Your task to perform on an android device: Open Google Chrome and click the shortcut for Amazon.com Image 0: 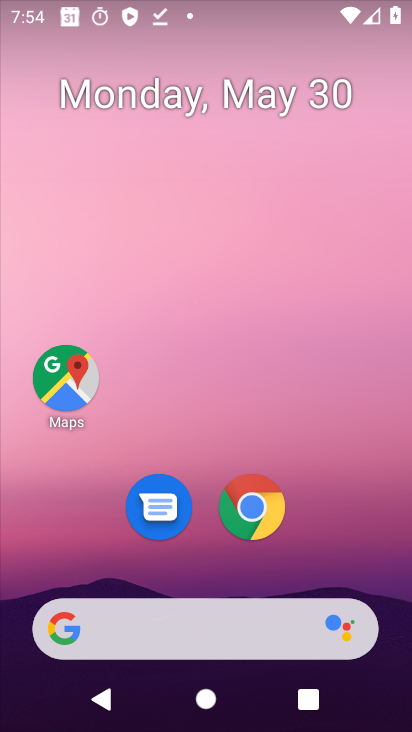
Step 0: drag from (375, 517) to (346, 184)
Your task to perform on an android device: Open Google Chrome and click the shortcut for Amazon.com Image 1: 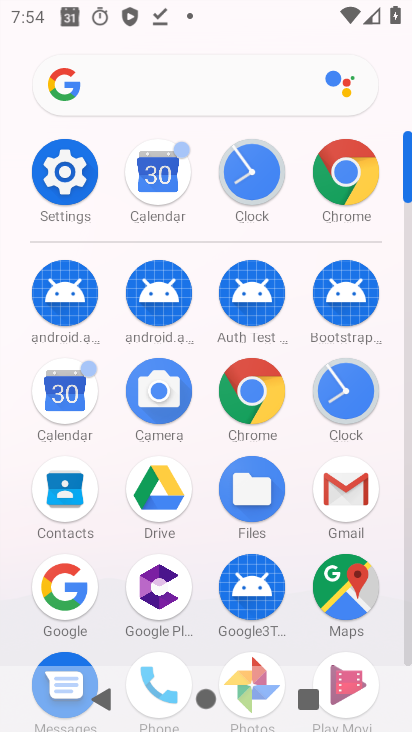
Step 1: click (335, 195)
Your task to perform on an android device: Open Google Chrome and click the shortcut for Amazon.com Image 2: 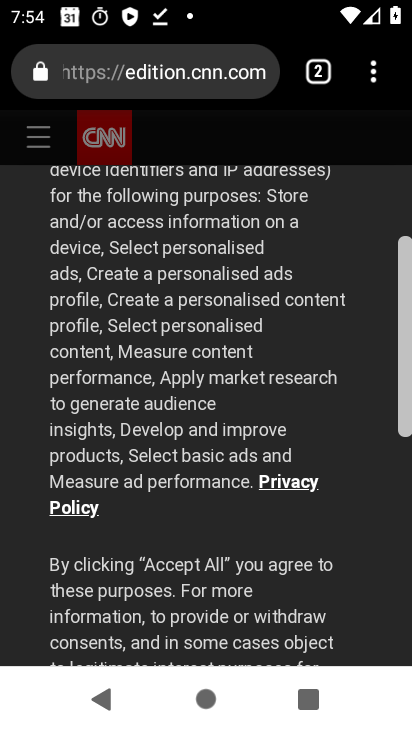
Step 2: click (312, 80)
Your task to perform on an android device: Open Google Chrome and click the shortcut for Amazon.com Image 3: 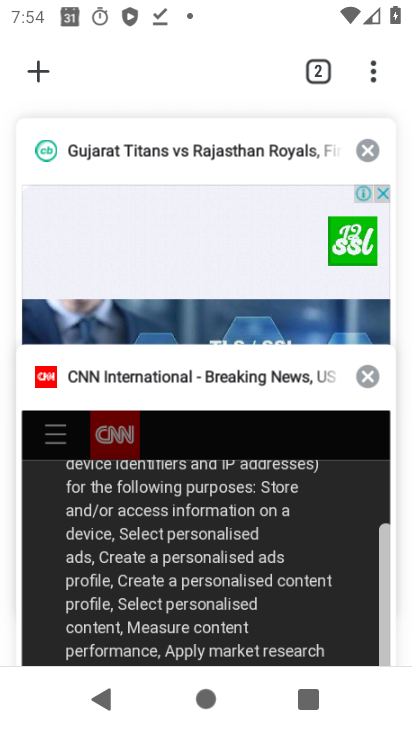
Step 3: click (55, 67)
Your task to perform on an android device: Open Google Chrome and click the shortcut for Amazon.com Image 4: 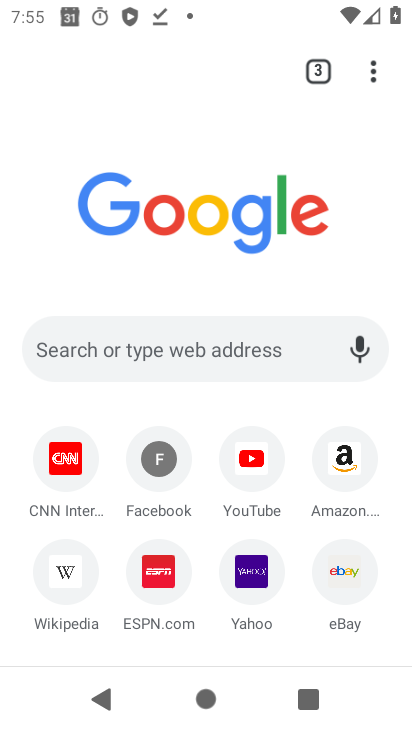
Step 4: click (362, 458)
Your task to perform on an android device: Open Google Chrome and click the shortcut for Amazon.com Image 5: 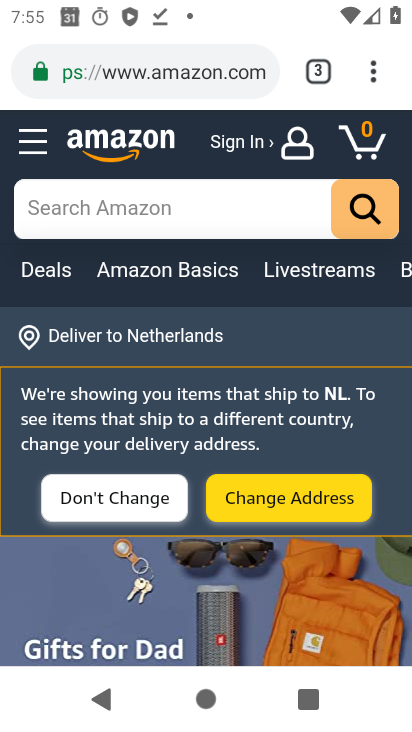
Step 5: task complete